Your task to perform on an android device: Search for usb-a on ebay, select the first entry, add it to the cart, then select checkout. Image 0: 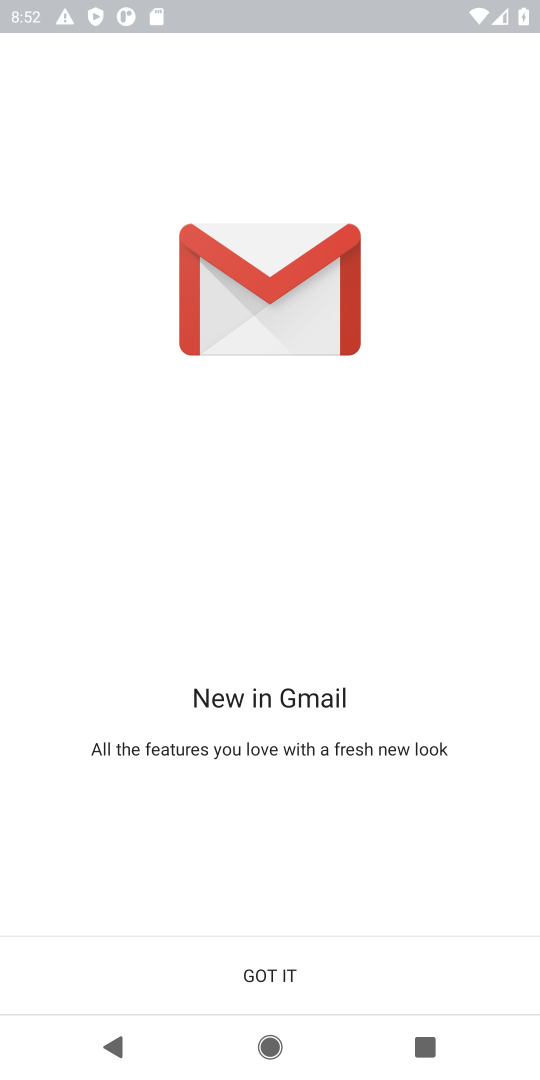
Step 0: press home button
Your task to perform on an android device: Search for usb-a on ebay, select the first entry, add it to the cart, then select checkout. Image 1: 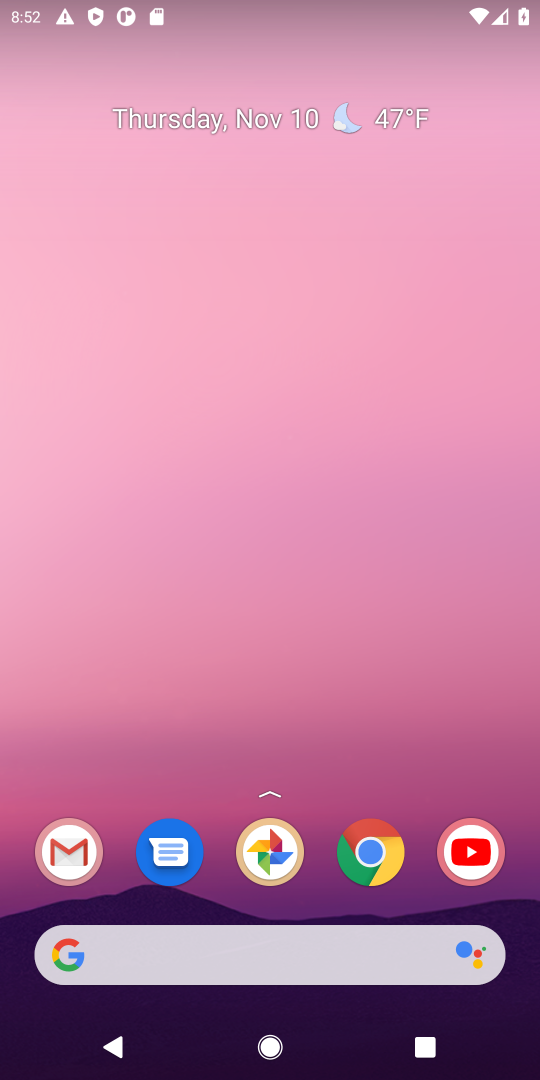
Step 1: click (380, 852)
Your task to perform on an android device: Search for usb-a on ebay, select the first entry, add it to the cart, then select checkout. Image 2: 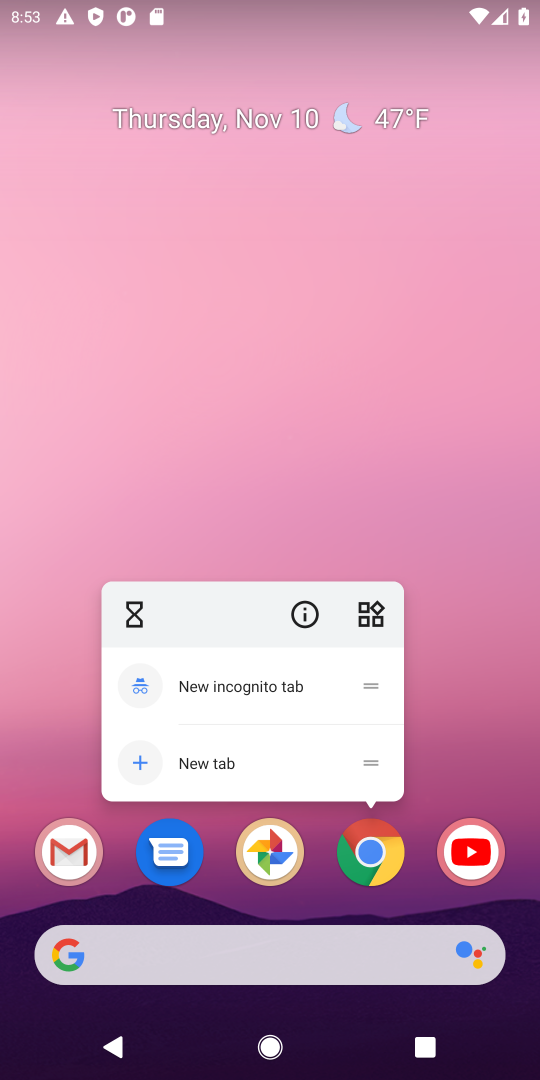
Step 2: click (364, 848)
Your task to perform on an android device: Search for usb-a on ebay, select the first entry, add it to the cart, then select checkout. Image 3: 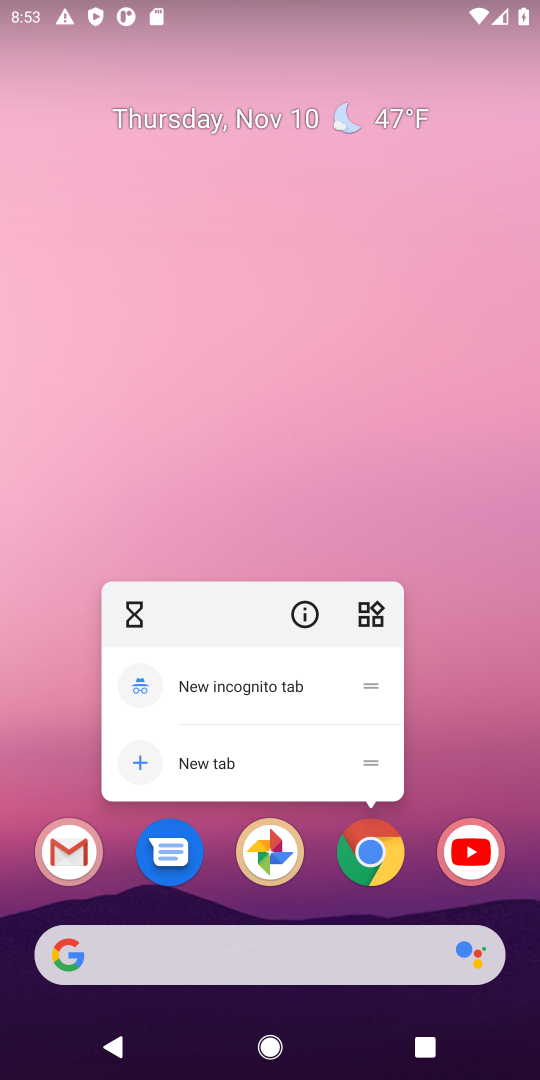
Step 3: click (364, 849)
Your task to perform on an android device: Search for usb-a on ebay, select the first entry, add it to the cart, then select checkout. Image 4: 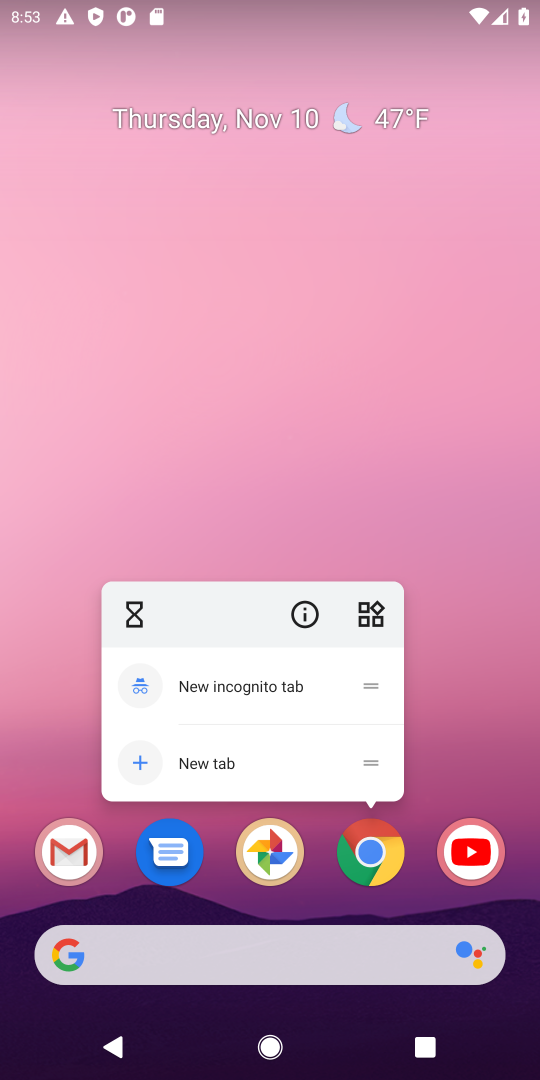
Step 4: click (364, 848)
Your task to perform on an android device: Search for usb-a on ebay, select the first entry, add it to the cart, then select checkout. Image 5: 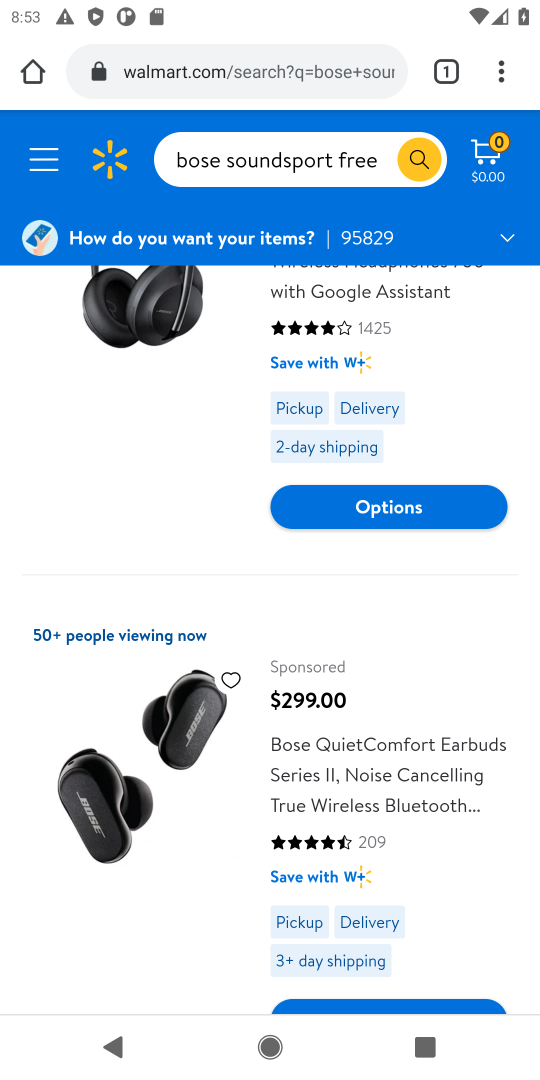
Step 5: click (300, 60)
Your task to perform on an android device: Search for usb-a on ebay, select the first entry, add it to the cart, then select checkout. Image 6: 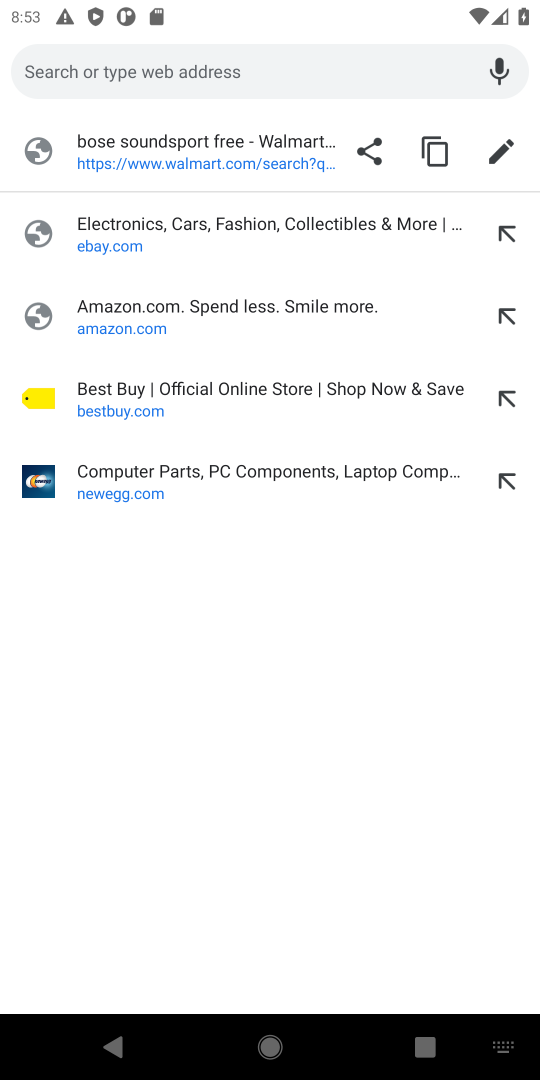
Step 6: type " ebay"
Your task to perform on an android device: Search for usb-a on ebay, select the first entry, add it to the cart, then select checkout. Image 7: 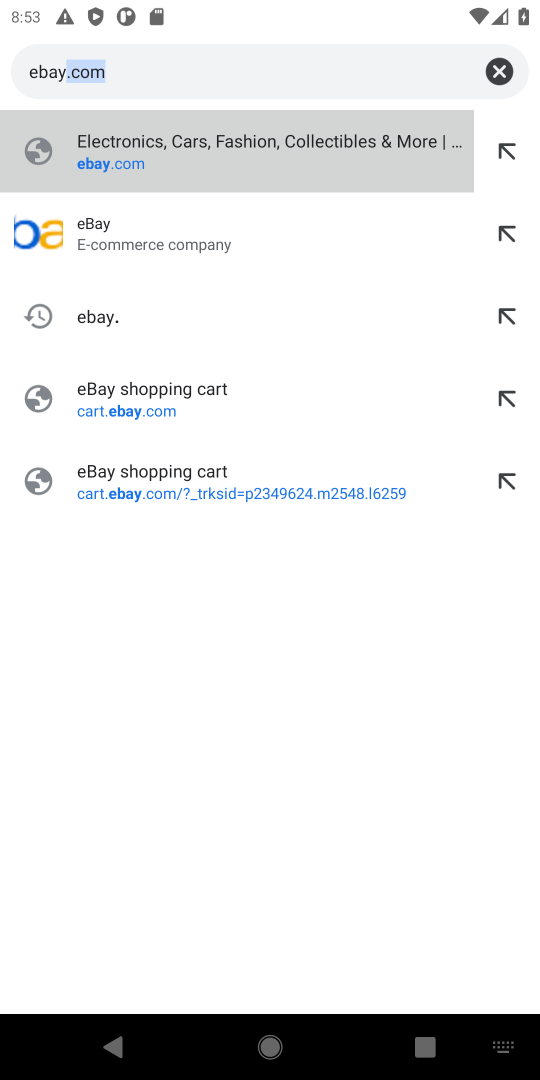
Step 7: press enter
Your task to perform on an android device: Search for usb-a on ebay, select the first entry, add it to the cart, then select checkout. Image 8: 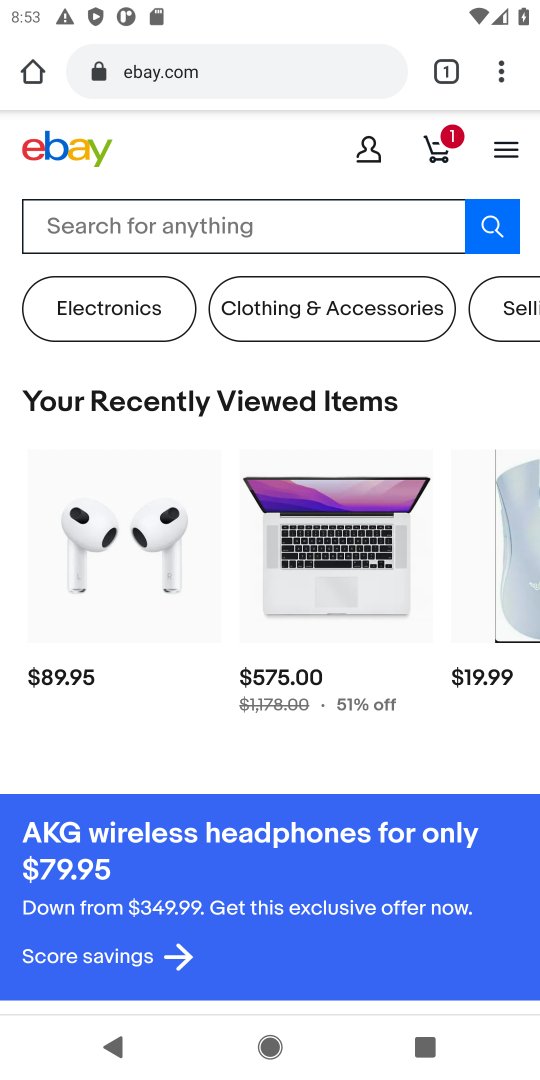
Step 8: click (328, 223)
Your task to perform on an android device: Search for usb-a on ebay, select the first entry, add it to the cart, then select checkout. Image 9: 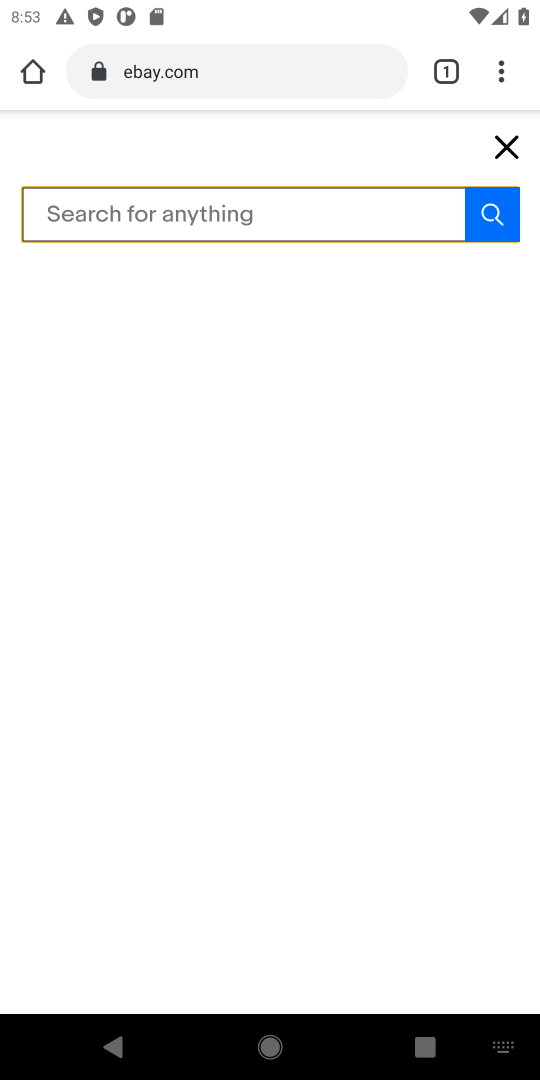
Step 9: type "usb-a"
Your task to perform on an android device: Search for usb-a on ebay, select the first entry, add it to the cart, then select checkout. Image 10: 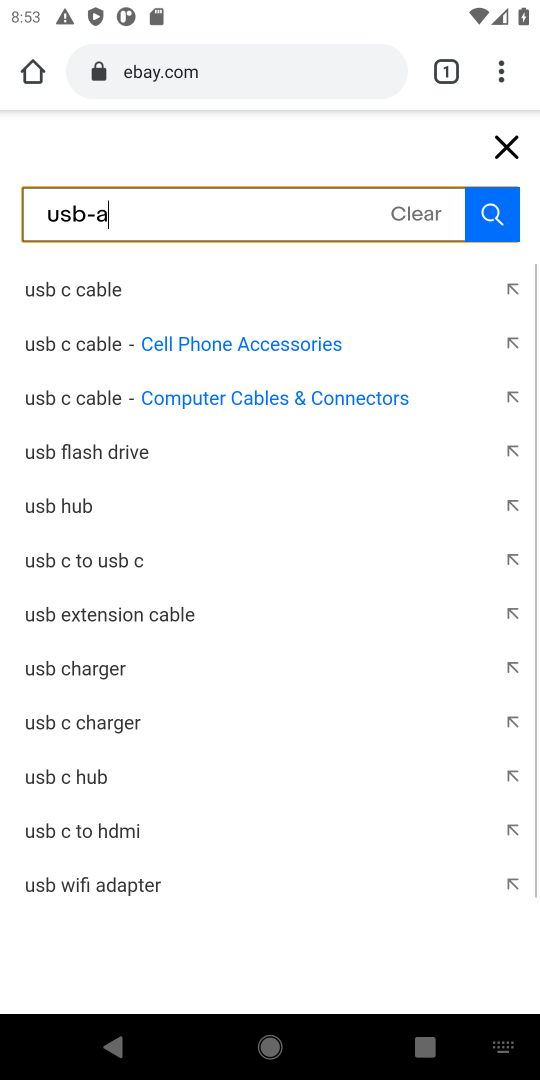
Step 10: press enter
Your task to perform on an android device: Search for usb-a on ebay, select the first entry, add it to the cart, then select checkout. Image 11: 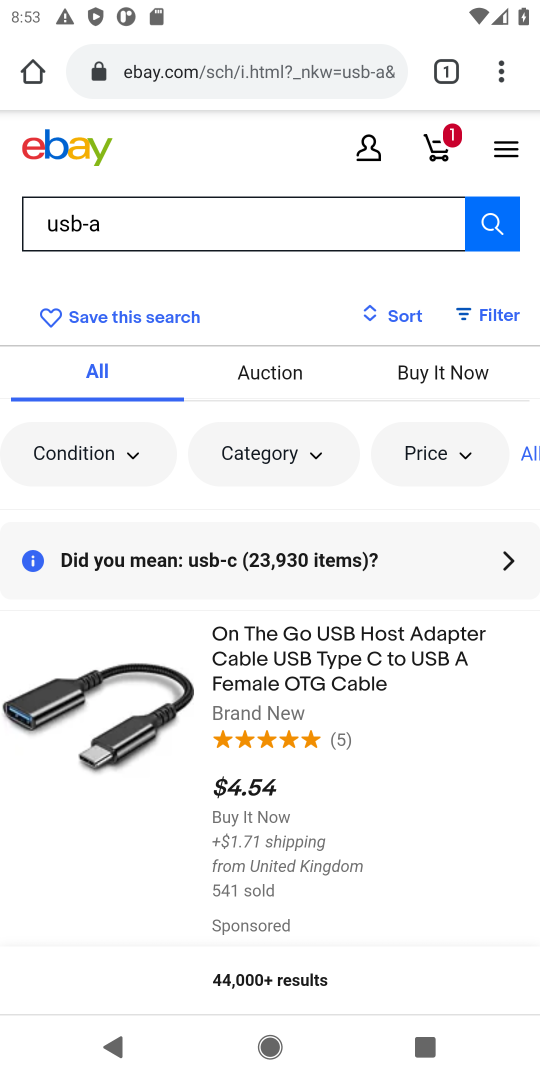
Step 11: task complete